Your task to perform on an android device: turn on sleep mode Image 0: 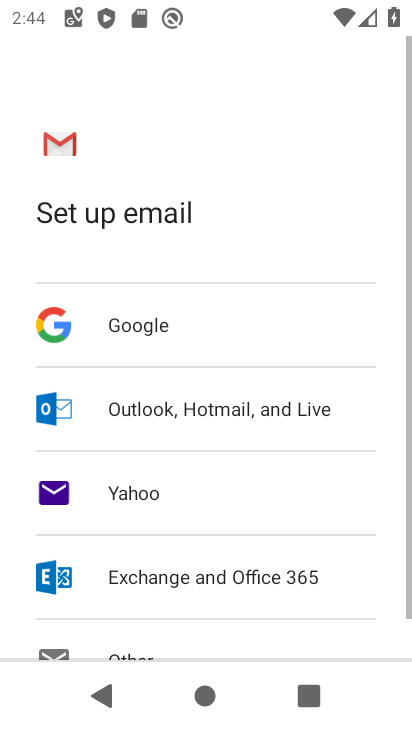
Step 0: press home button
Your task to perform on an android device: turn on sleep mode Image 1: 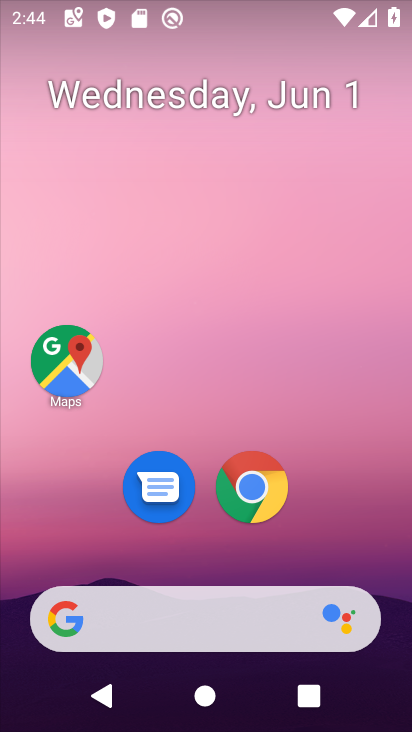
Step 1: drag from (324, 323) to (314, 18)
Your task to perform on an android device: turn on sleep mode Image 2: 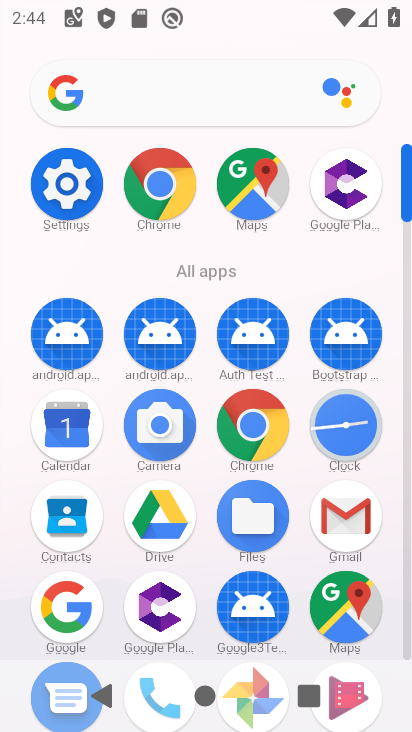
Step 2: click (84, 181)
Your task to perform on an android device: turn on sleep mode Image 3: 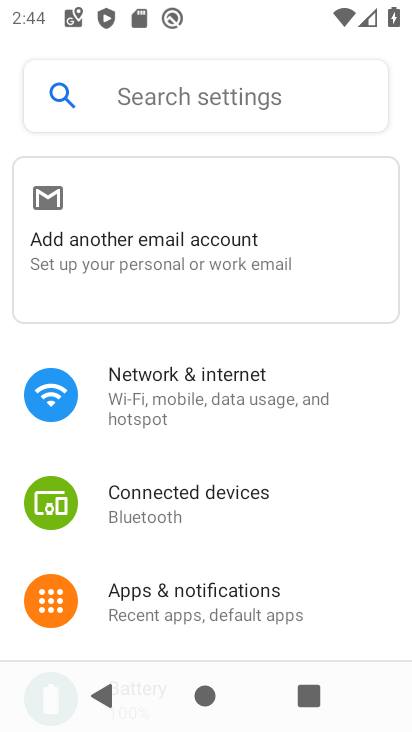
Step 3: drag from (256, 570) to (256, 127)
Your task to perform on an android device: turn on sleep mode Image 4: 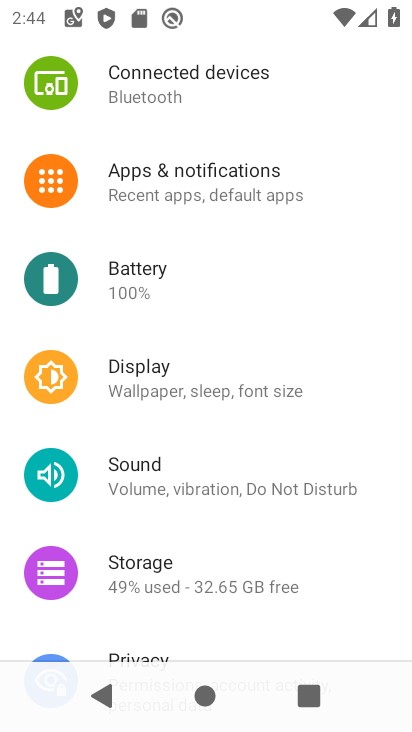
Step 4: click (209, 372)
Your task to perform on an android device: turn on sleep mode Image 5: 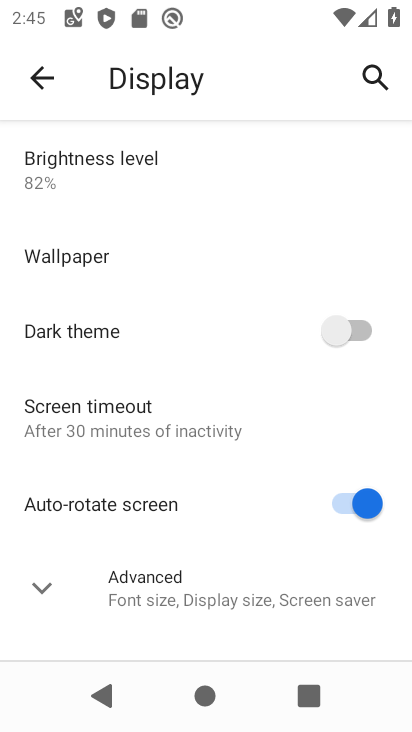
Step 5: click (42, 586)
Your task to perform on an android device: turn on sleep mode Image 6: 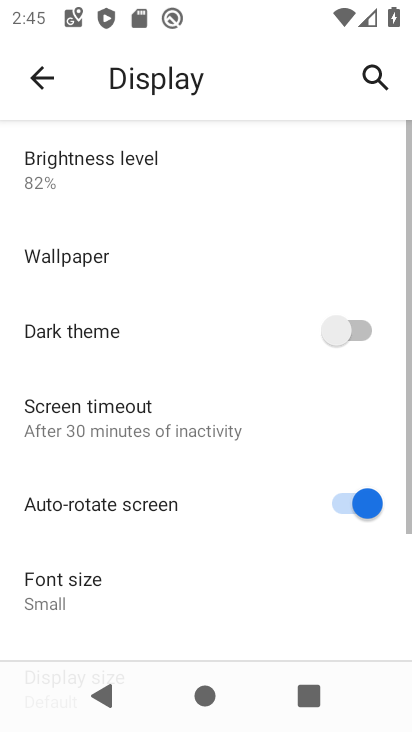
Step 6: drag from (246, 450) to (221, 126)
Your task to perform on an android device: turn on sleep mode Image 7: 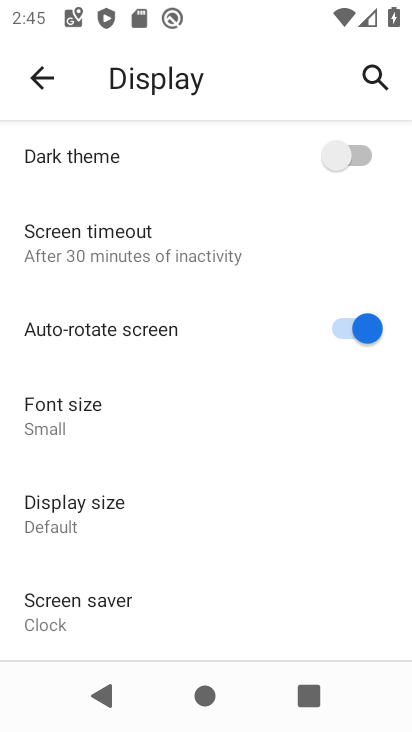
Step 7: click (106, 510)
Your task to perform on an android device: turn on sleep mode Image 8: 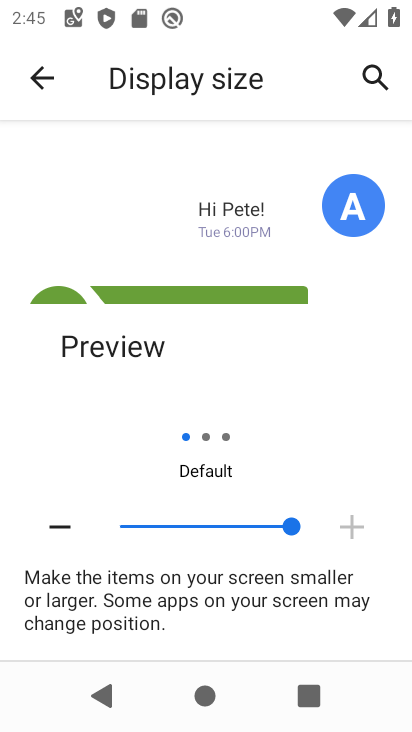
Step 8: click (57, 520)
Your task to perform on an android device: turn on sleep mode Image 9: 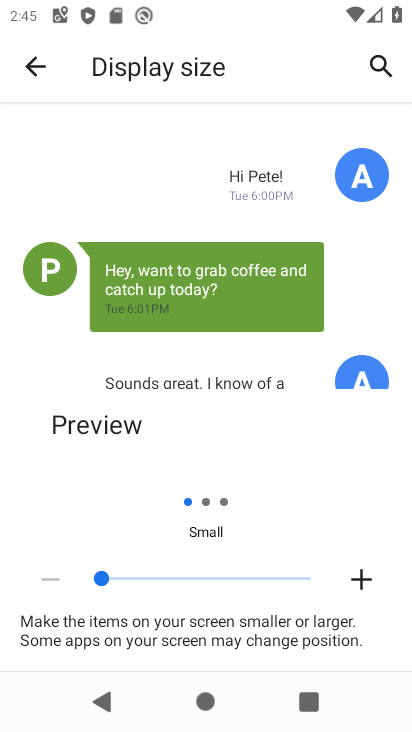
Step 9: click (33, 60)
Your task to perform on an android device: turn on sleep mode Image 10: 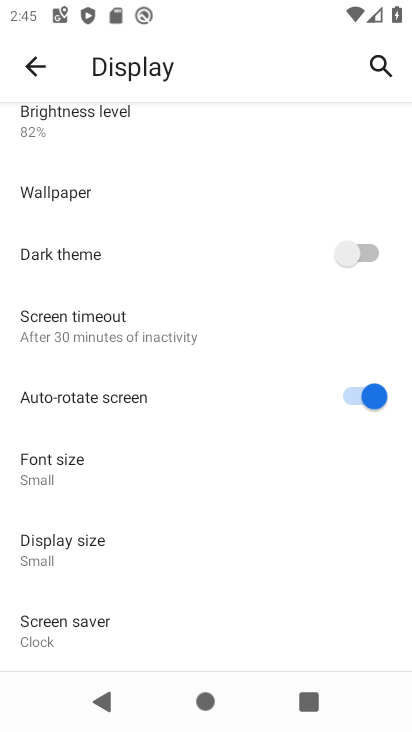
Step 10: click (33, 58)
Your task to perform on an android device: turn on sleep mode Image 11: 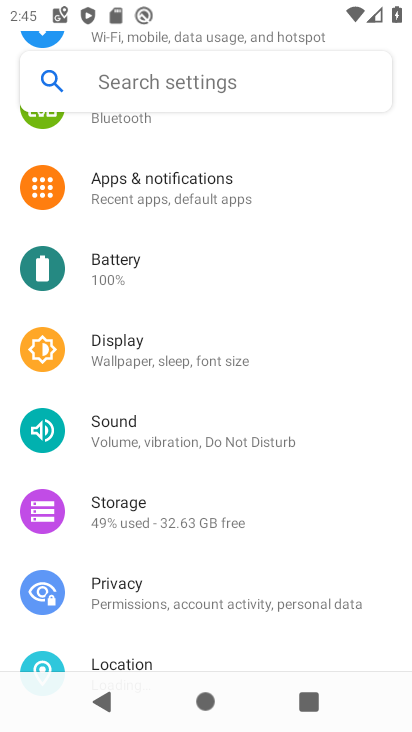
Step 11: click (166, 339)
Your task to perform on an android device: turn on sleep mode Image 12: 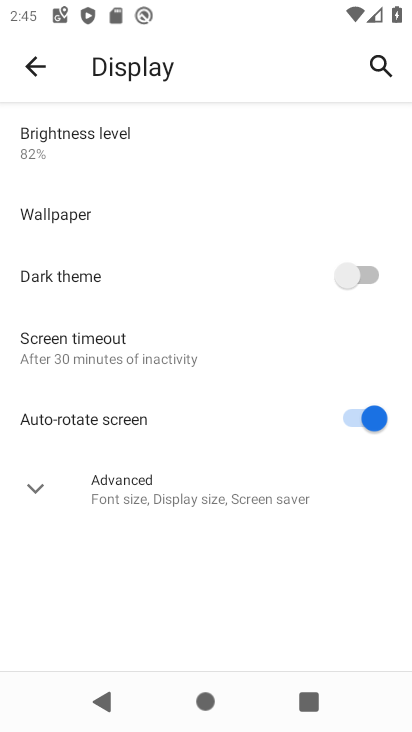
Step 12: click (83, 489)
Your task to perform on an android device: turn on sleep mode Image 13: 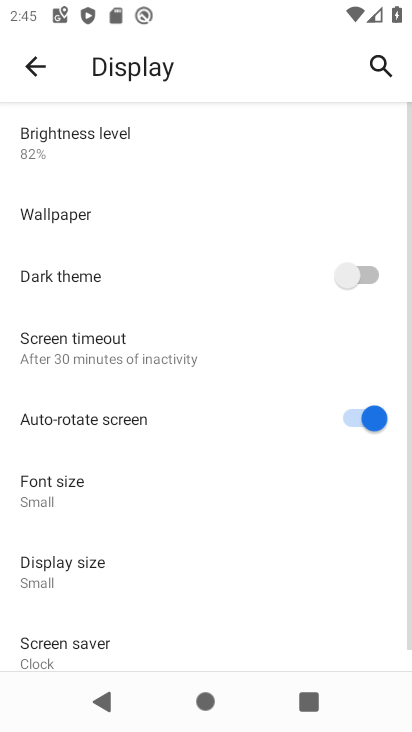
Step 13: click (82, 564)
Your task to perform on an android device: turn on sleep mode Image 14: 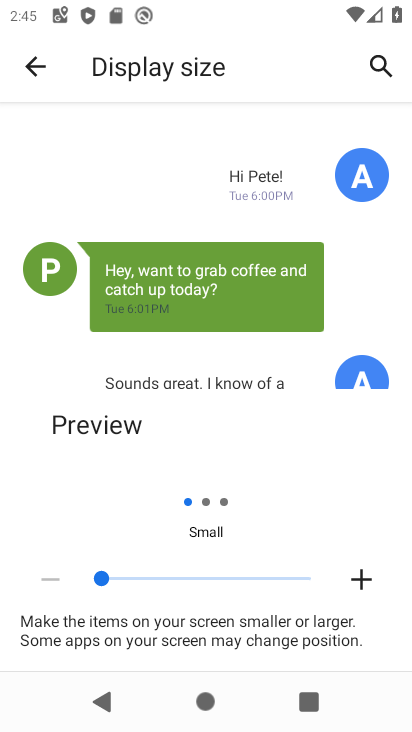
Step 14: click (356, 574)
Your task to perform on an android device: turn on sleep mode Image 15: 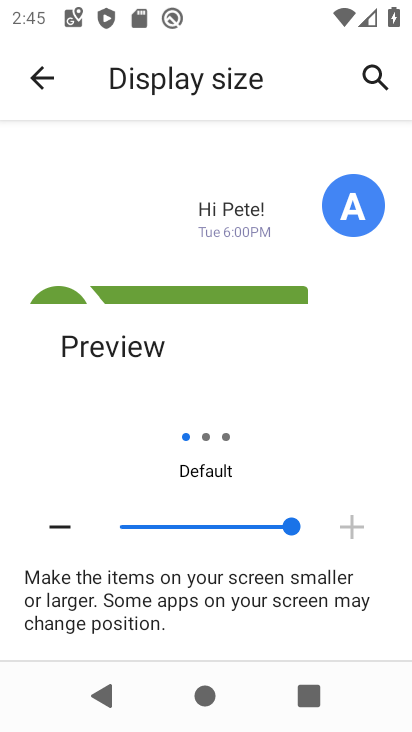
Step 15: click (35, 63)
Your task to perform on an android device: turn on sleep mode Image 16: 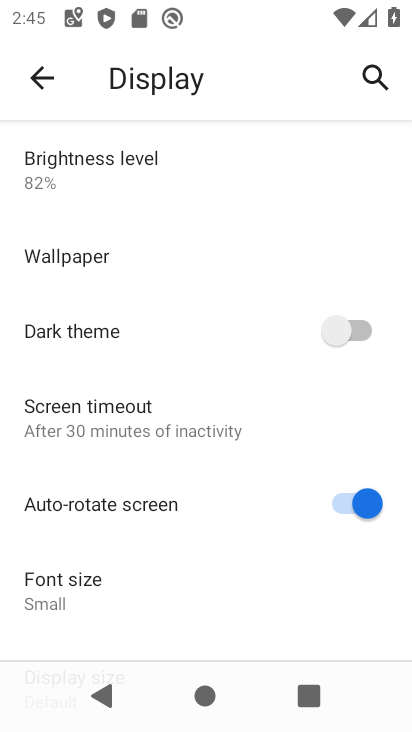
Step 16: click (95, 583)
Your task to perform on an android device: turn on sleep mode Image 17: 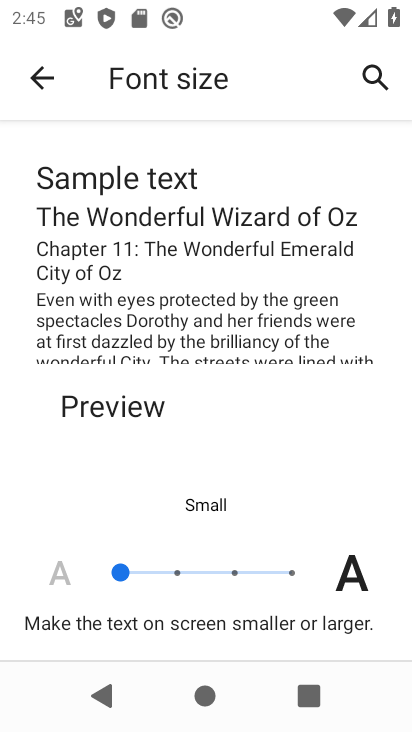
Step 17: click (175, 567)
Your task to perform on an android device: turn on sleep mode Image 18: 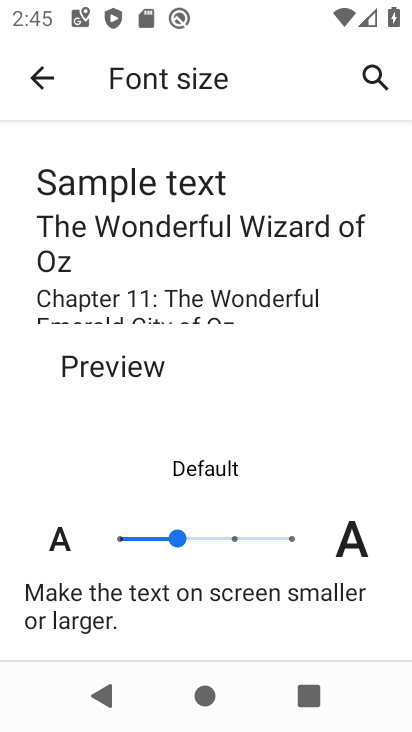
Step 18: click (33, 71)
Your task to perform on an android device: turn on sleep mode Image 19: 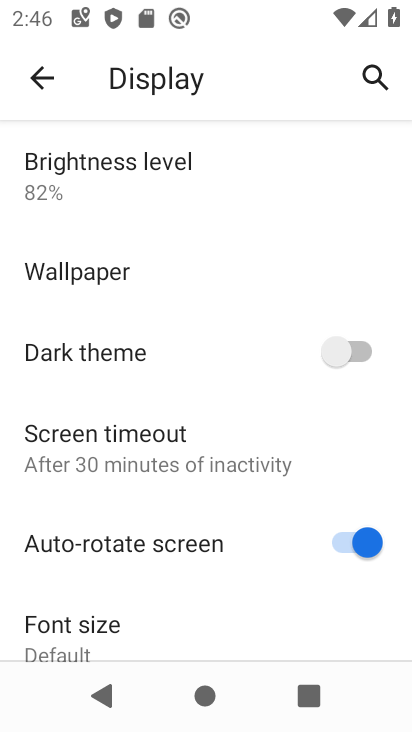
Step 19: task complete